Your task to perform on an android device: open app "Indeed Job Search" (install if not already installed) Image 0: 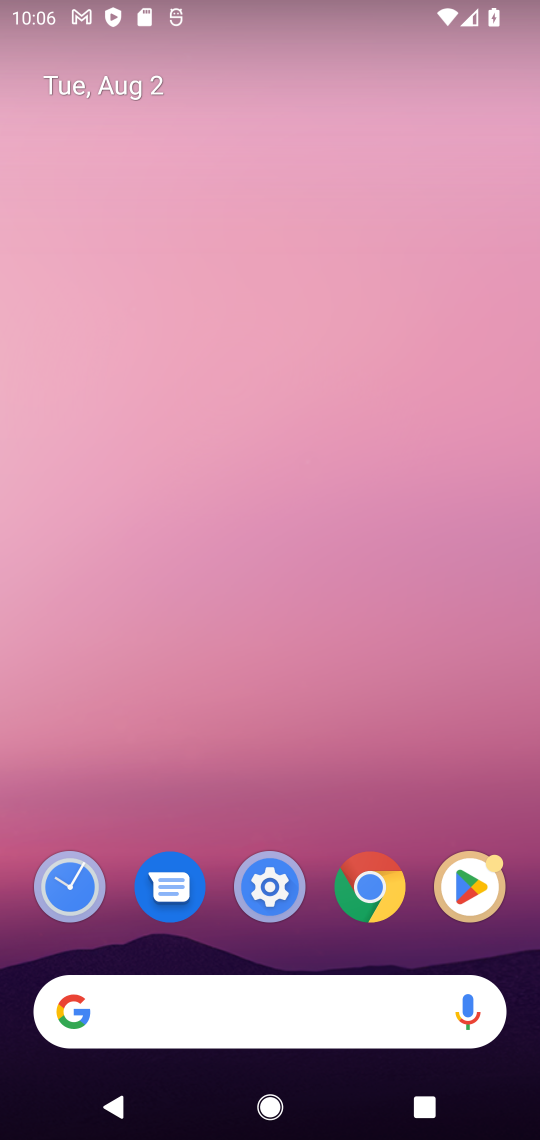
Step 0: drag from (259, 985) to (170, 1120)
Your task to perform on an android device: open app "Indeed Job Search" (install if not already installed) Image 1: 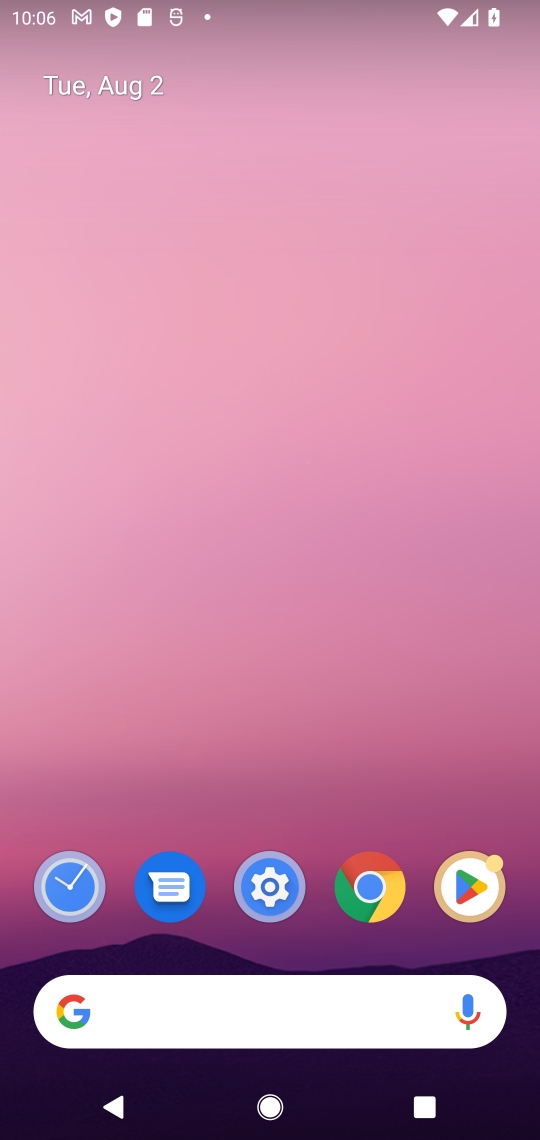
Step 1: click (347, 727)
Your task to perform on an android device: open app "Indeed Job Search" (install if not already installed) Image 2: 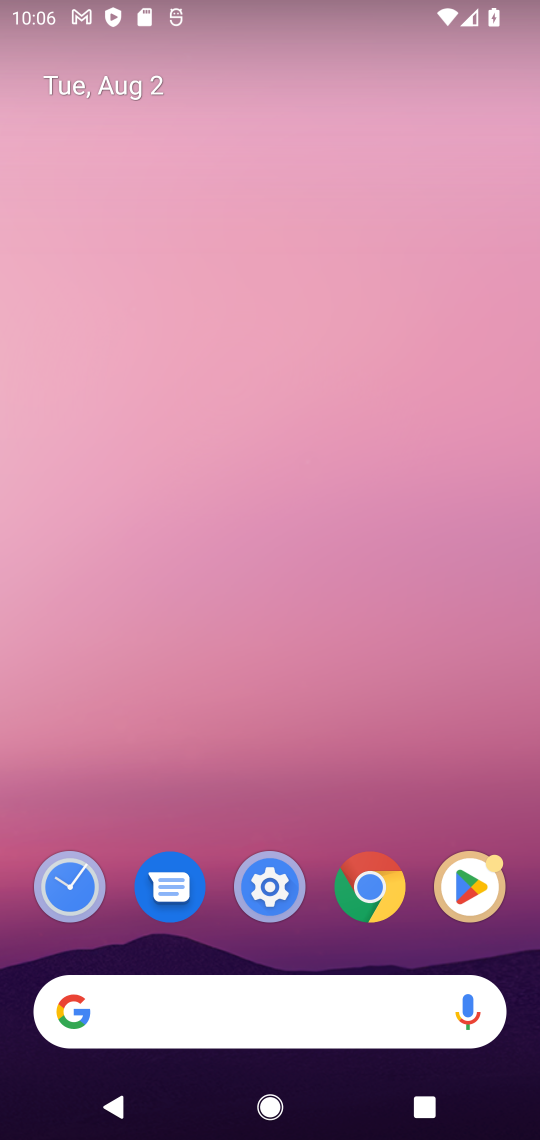
Step 2: drag from (267, 938) to (428, 0)
Your task to perform on an android device: open app "Indeed Job Search" (install if not already installed) Image 3: 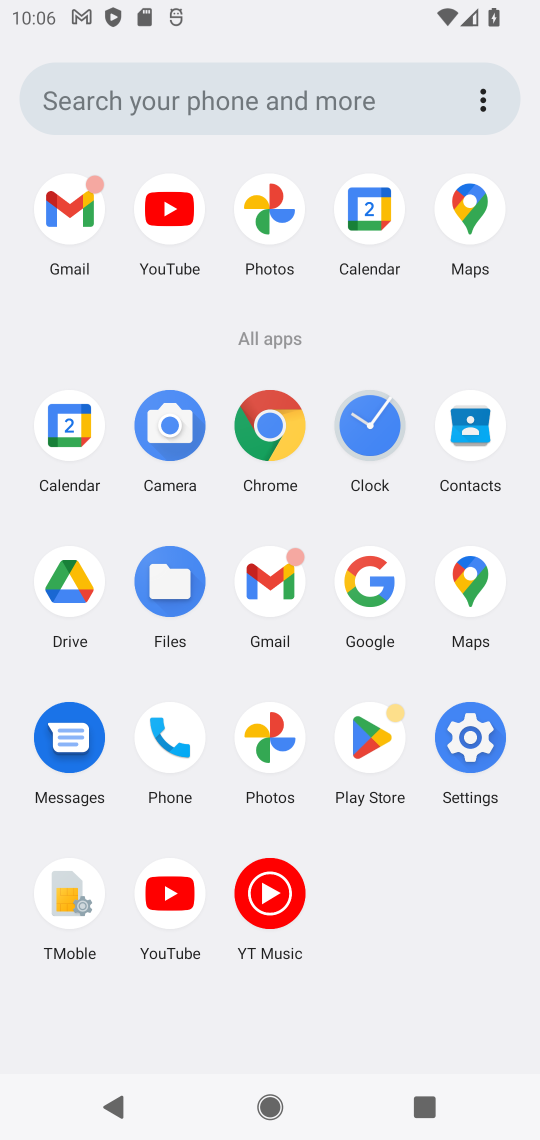
Step 3: click (379, 730)
Your task to perform on an android device: open app "Indeed Job Search" (install if not already installed) Image 4: 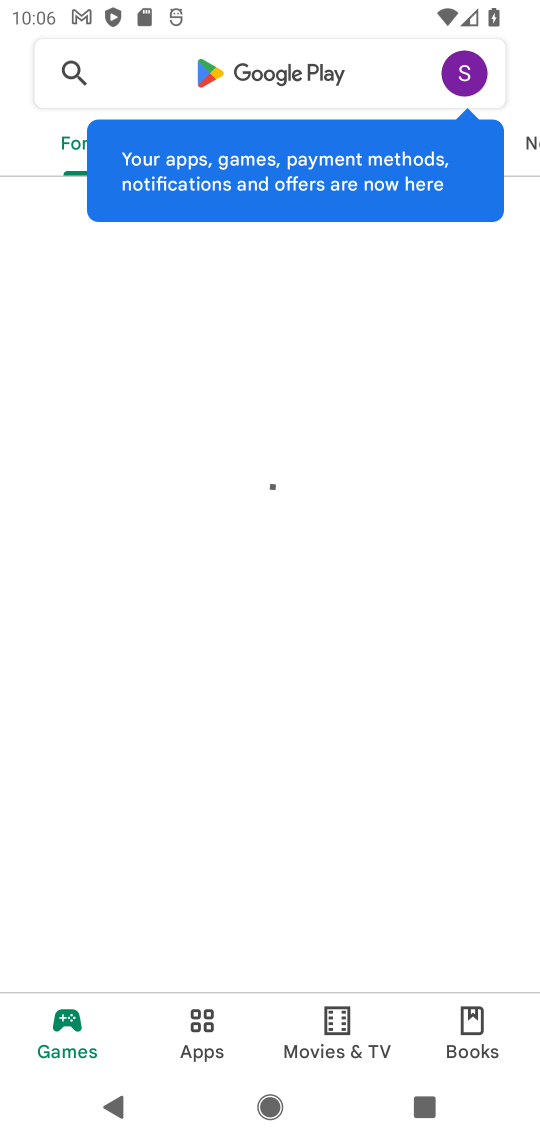
Step 4: click (159, 65)
Your task to perform on an android device: open app "Indeed Job Search" (install if not already installed) Image 5: 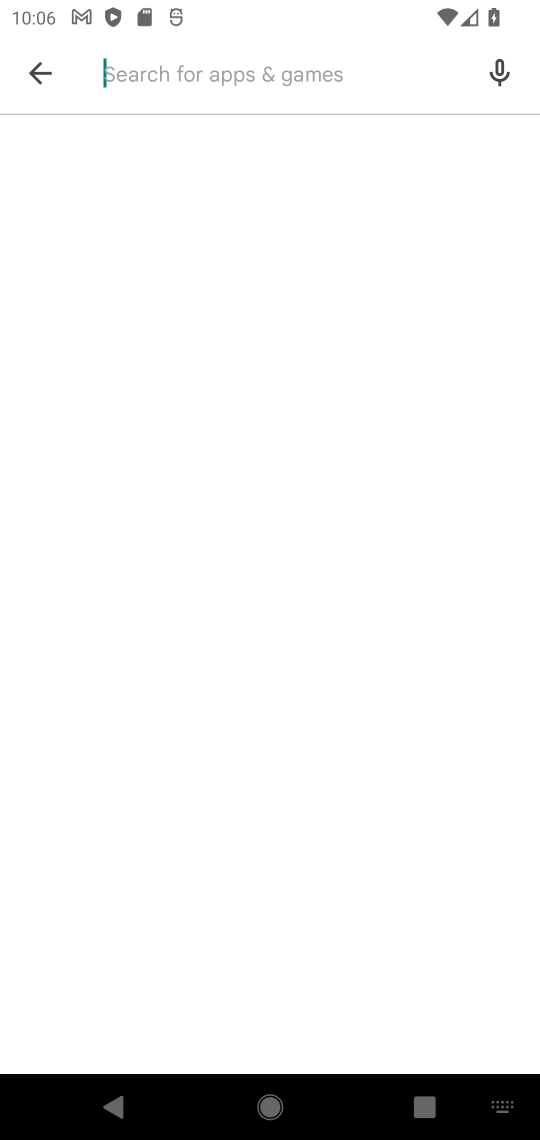
Step 5: type "Indeed Job Search"
Your task to perform on an android device: open app "Indeed Job Search" (install if not already installed) Image 6: 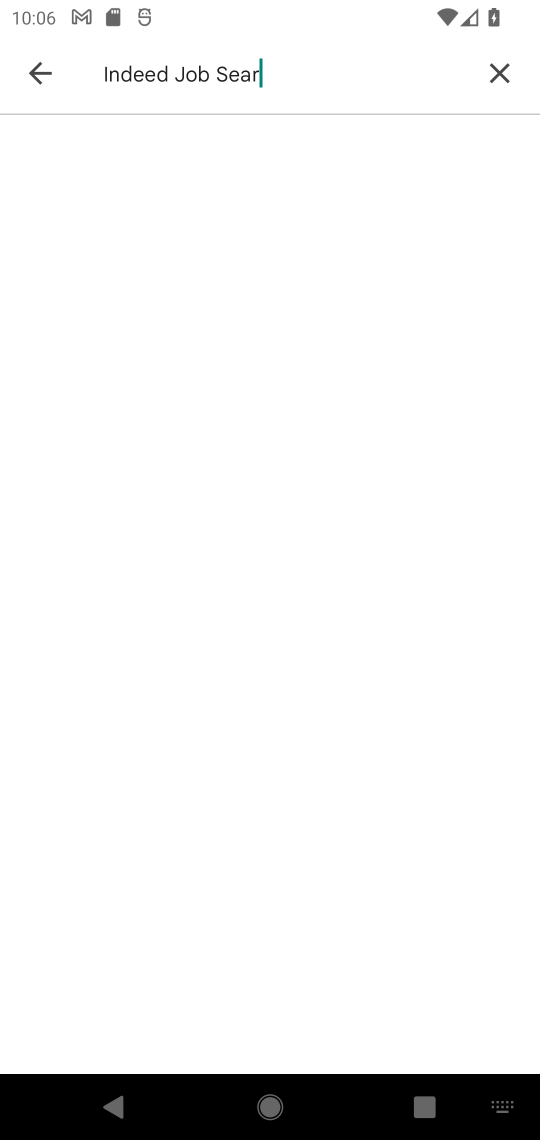
Step 6: type ""
Your task to perform on an android device: open app "Indeed Job Search" (install if not already installed) Image 7: 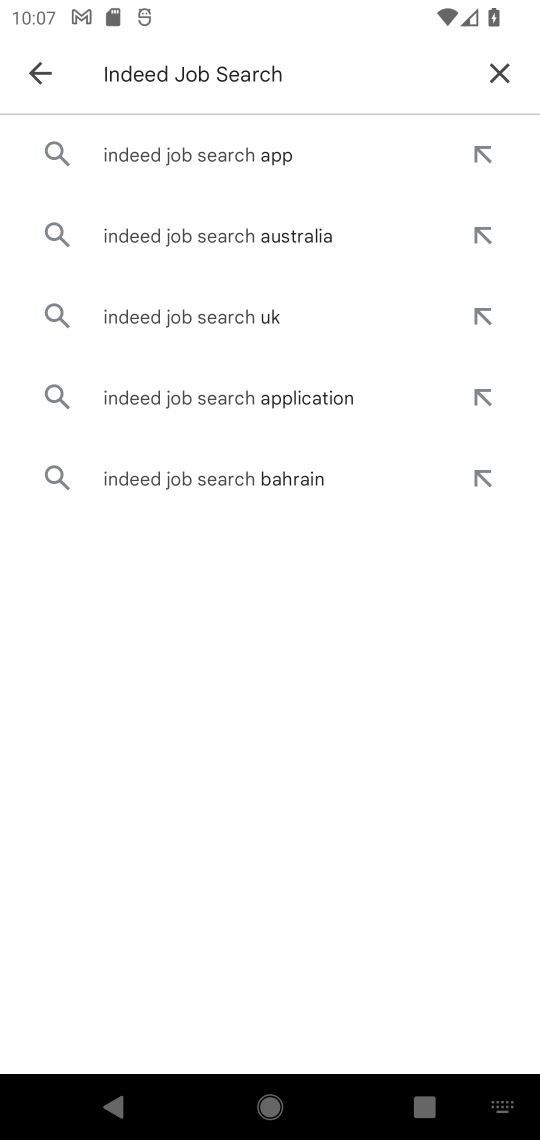
Step 7: click (98, 170)
Your task to perform on an android device: open app "Indeed Job Search" (install if not already installed) Image 8: 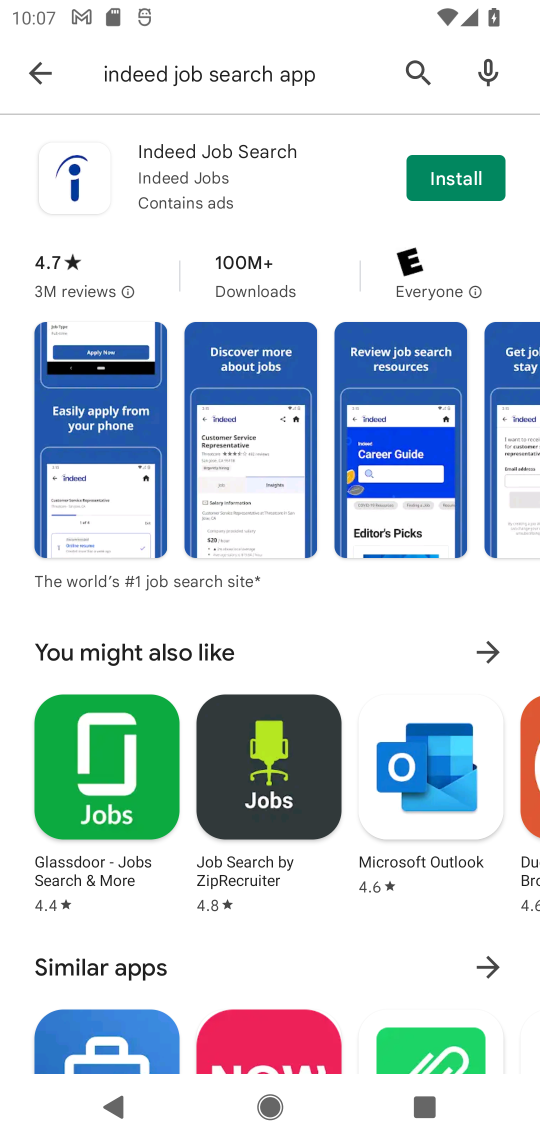
Step 8: click (424, 182)
Your task to perform on an android device: open app "Indeed Job Search" (install if not already installed) Image 9: 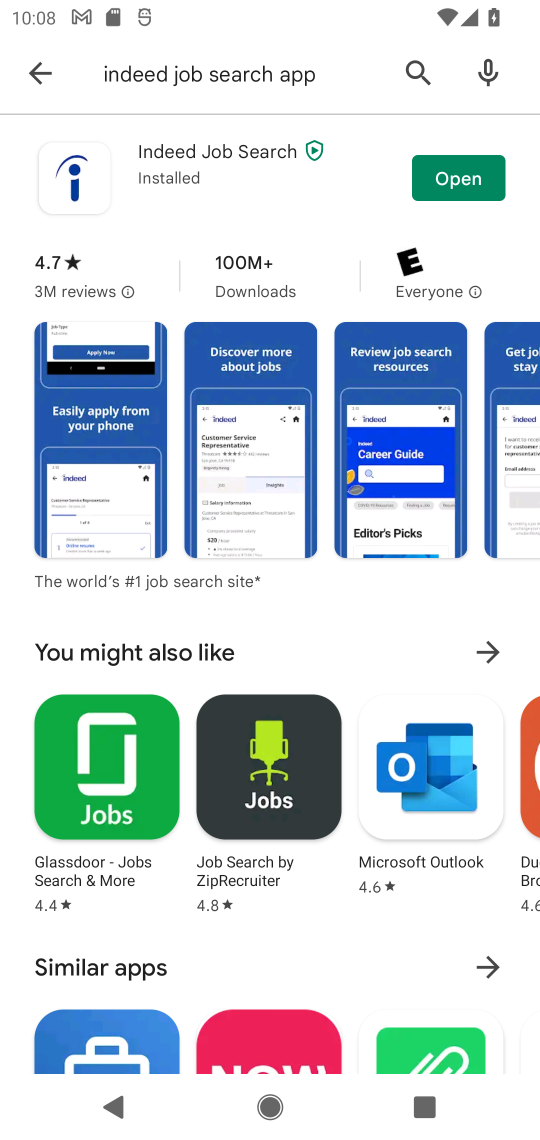
Step 9: click (469, 168)
Your task to perform on an android device: open app "Indeed Job Search" (install if not already installed) Image 10: 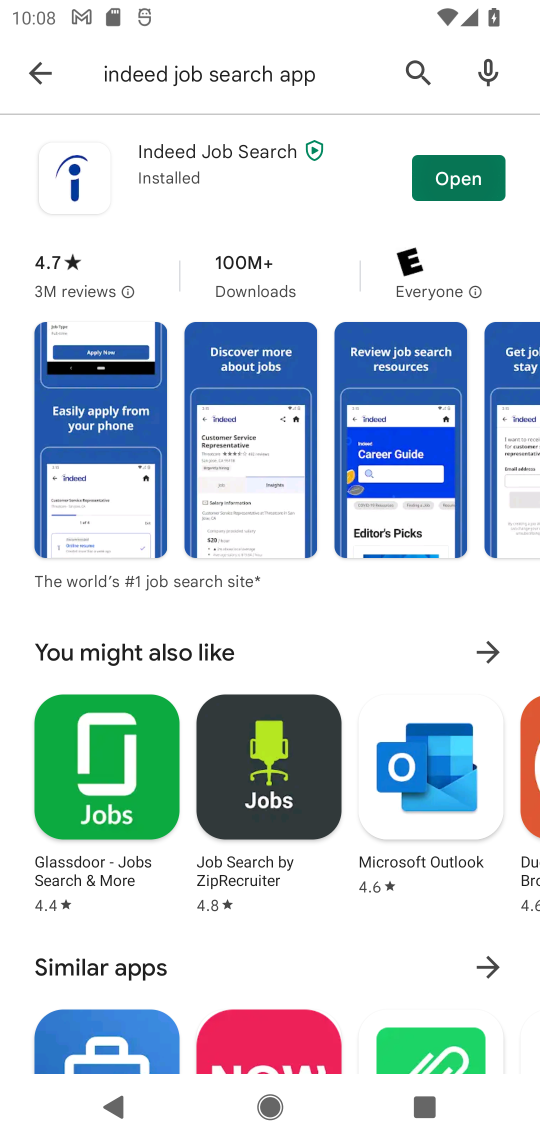
Step 10: task complete